Your task to perform on an android device: What is the news today? Image 0: 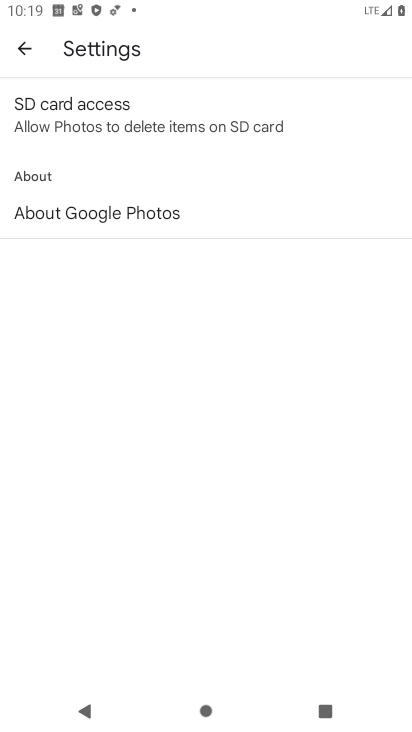
Step 0: press home button
Your task to perform on an android device: What is the news today? Image 1: 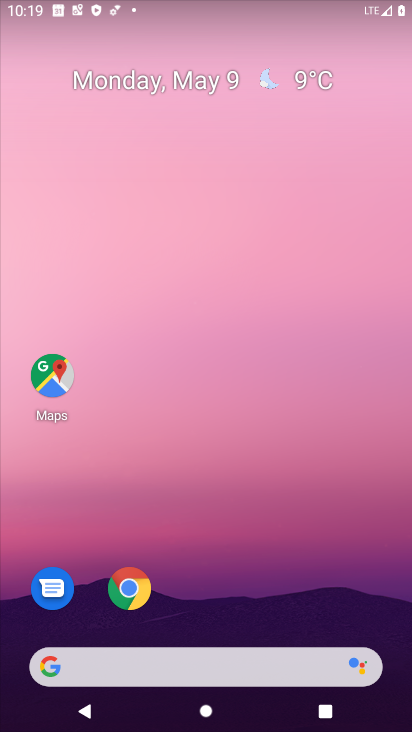
Step 1: click (55, 667)
Your task to perform on an android device: What is the news today? Image 2: 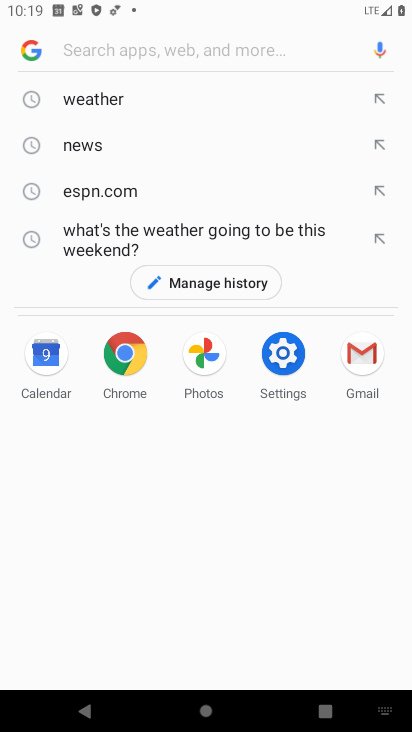
Step 2: click (96, 138)
Your task to perform on an android device: What is the news today? Image 3: 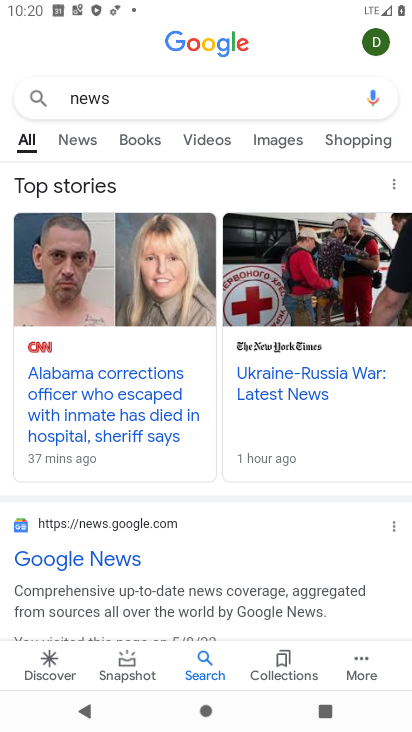
Step 3: click (73, 141)
Your task to perform on an android device: What is the news today? Image 4: 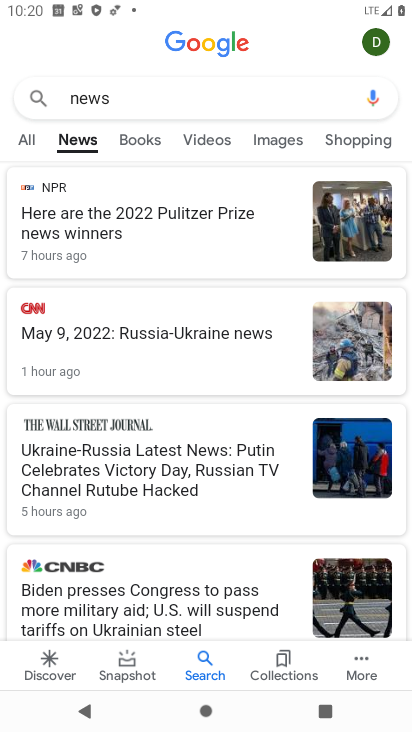
Step 4: task complete